Your task to perform on an android device: Open settings Image 0: 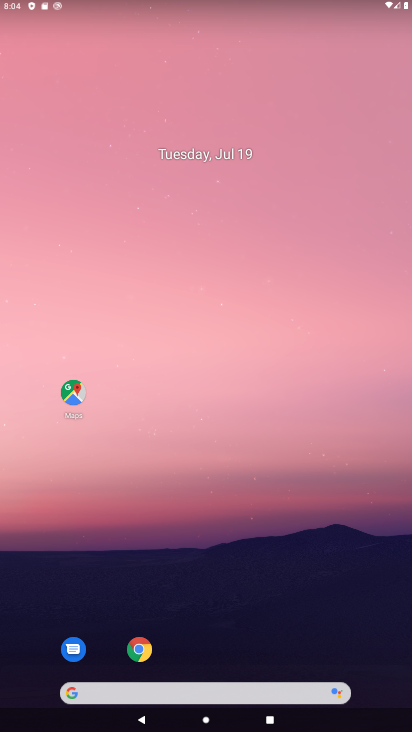
Step 0: drag from (263, 527) to (291, 93)
Your task to perform on an android device: Open settings Image 1: 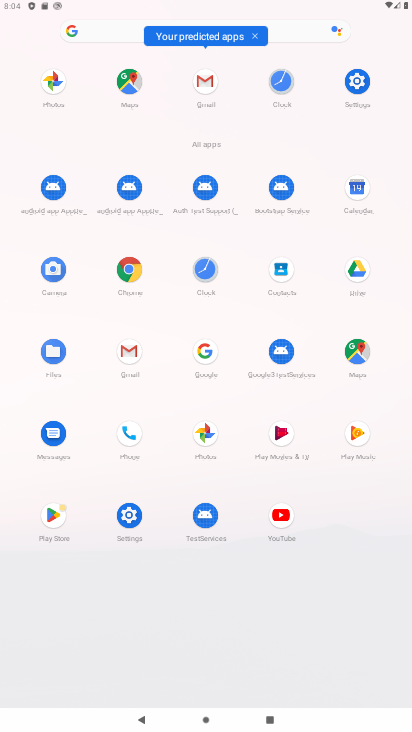
Step 1: click (126, 516)
Your task to perform on an android device: Open settings Image 2: 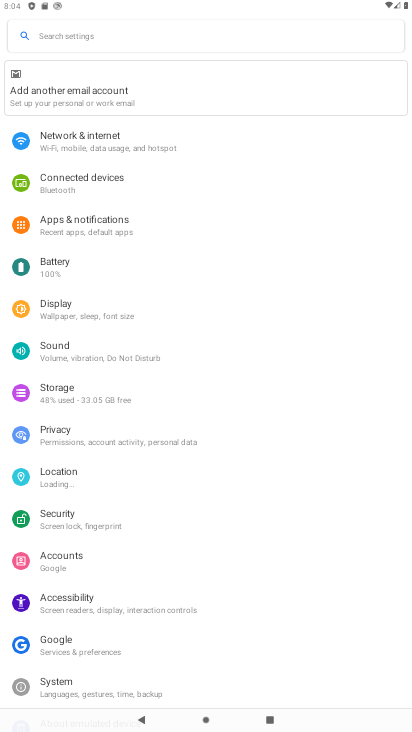
Step 2: task complete